Your task to perform on an android device: Go to notification settings Image 0: 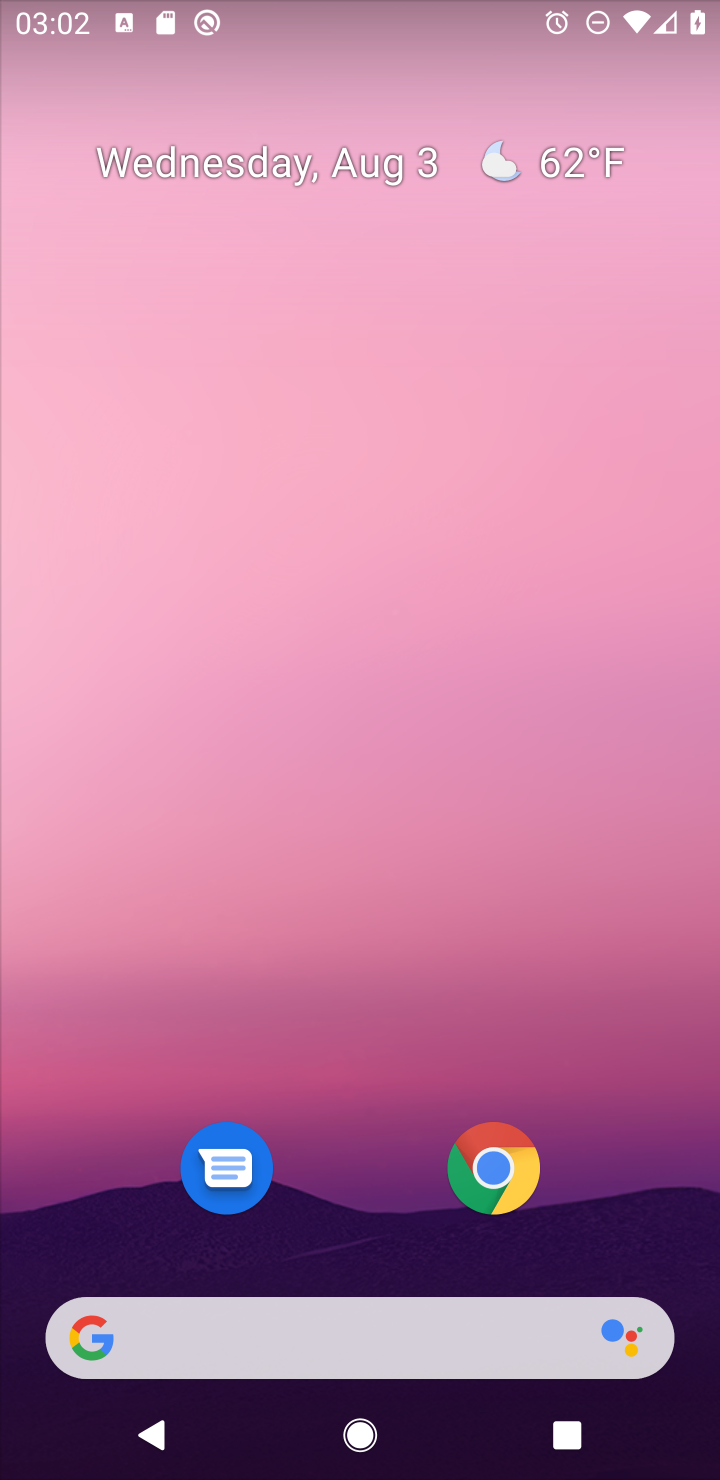
Step 0: drag from (669, 1251) to (637, 339)
Your task to perform on an android device: Go to notification settings Image 1: 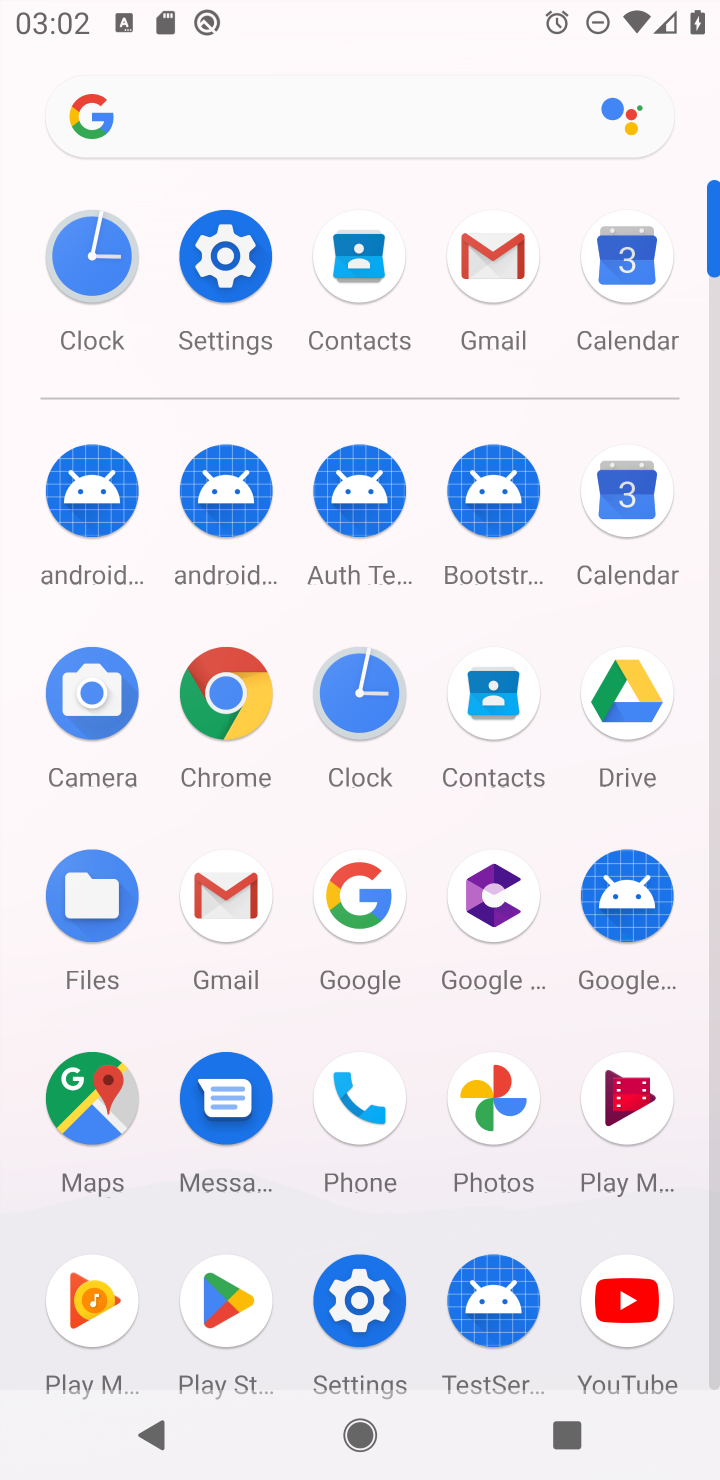
Step 1: click (359, 1307)
Your task to perform on an android device: Go to notification settings Image 2: 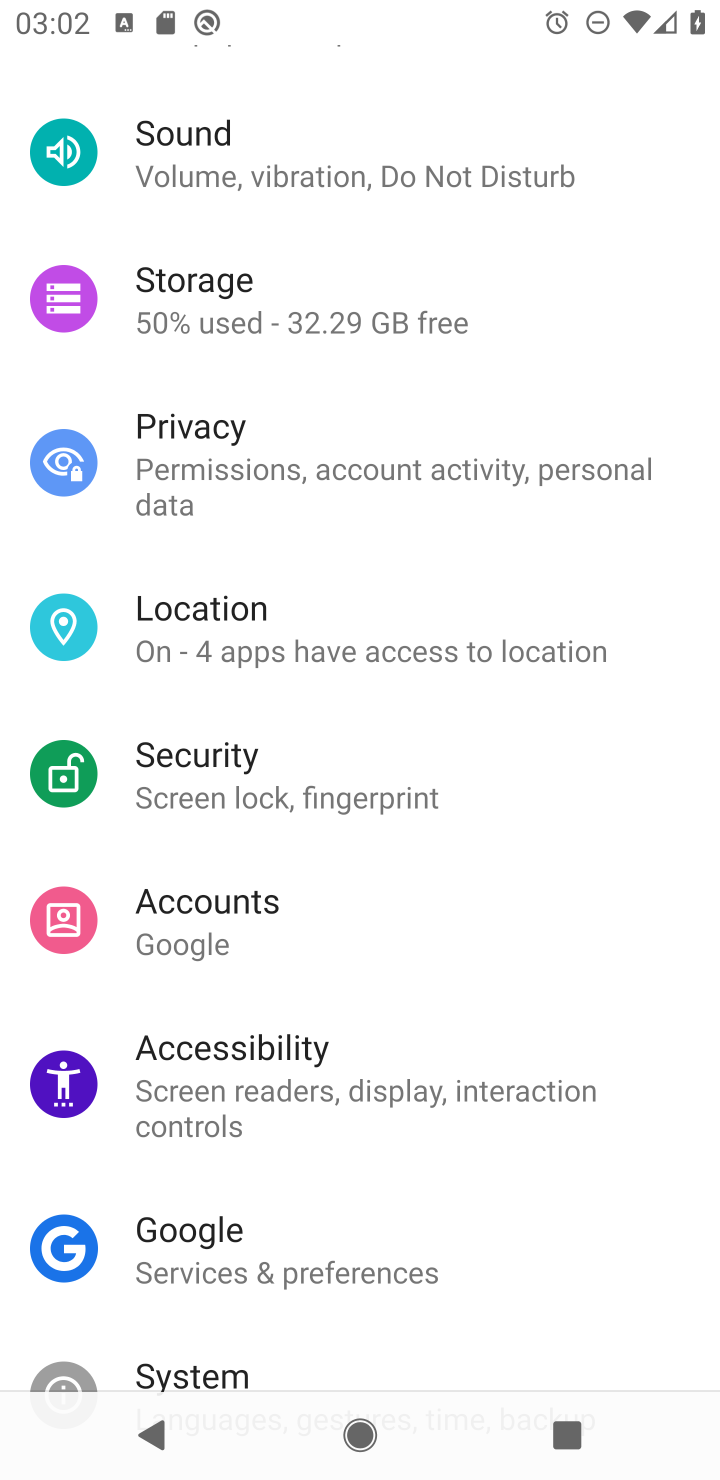
Step 2: drag from (537, 1279) to (589, 418)
Your task to perform on an android device: Go to notification settings Image 3: 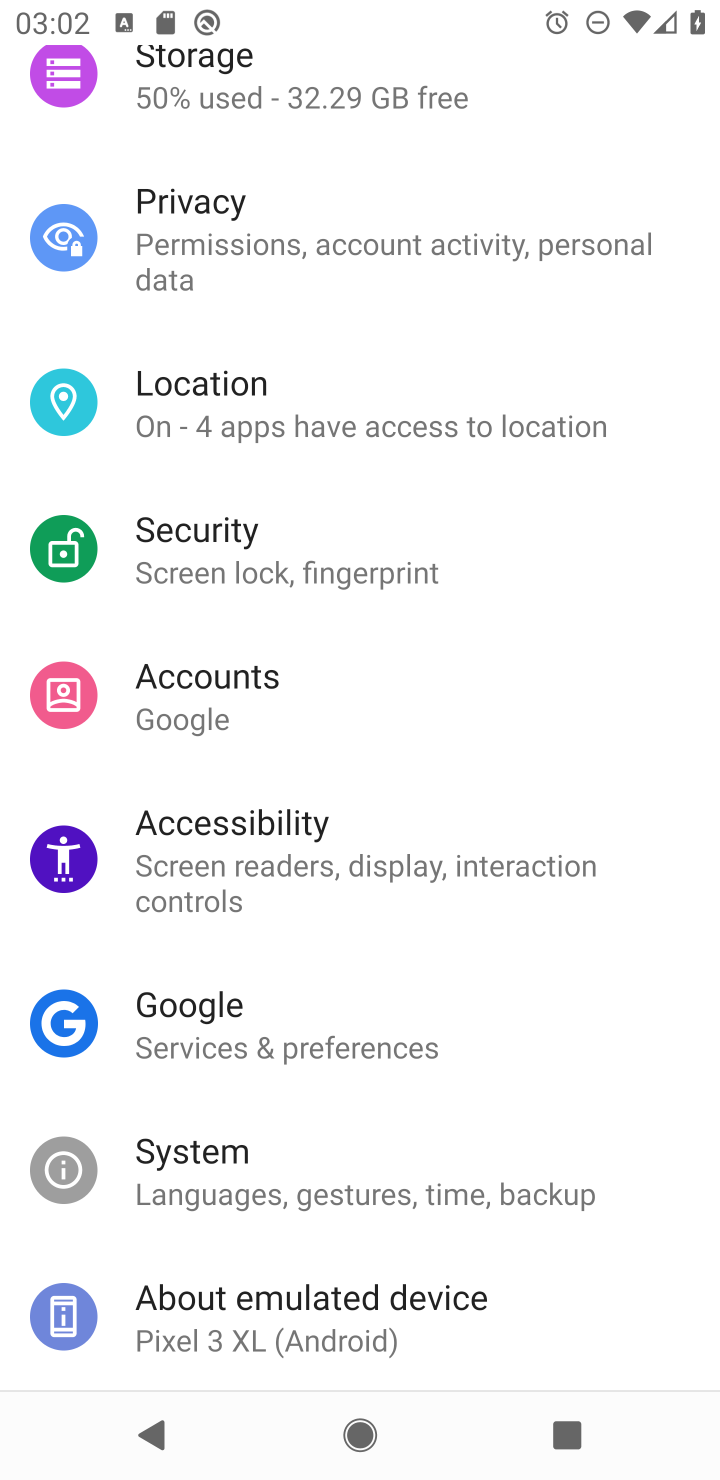
Step 3: click (267, 1308)
Your task to perform on an android device: Go to notification settings Image 4: 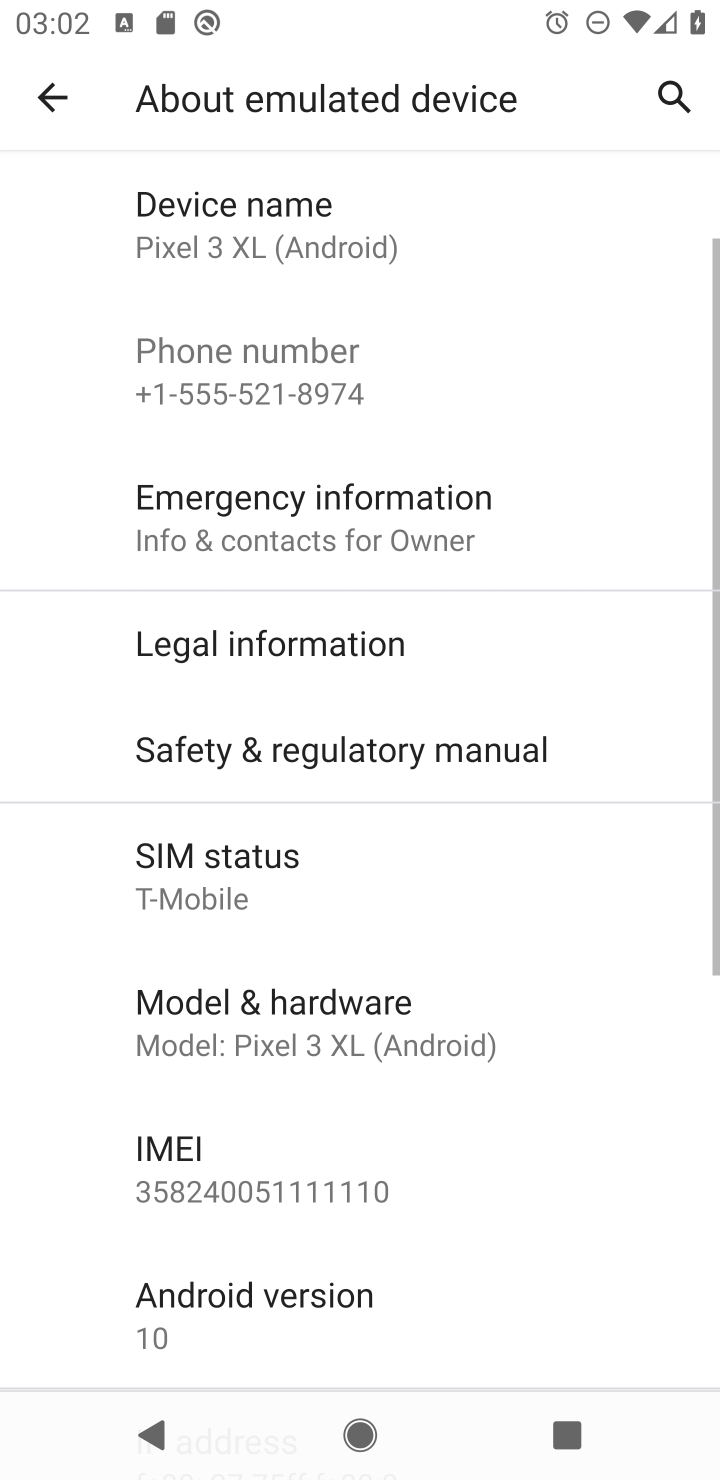
Step 4: task complete